Your task to perform on an android device: turn off data saver in the chrome app Image 0: 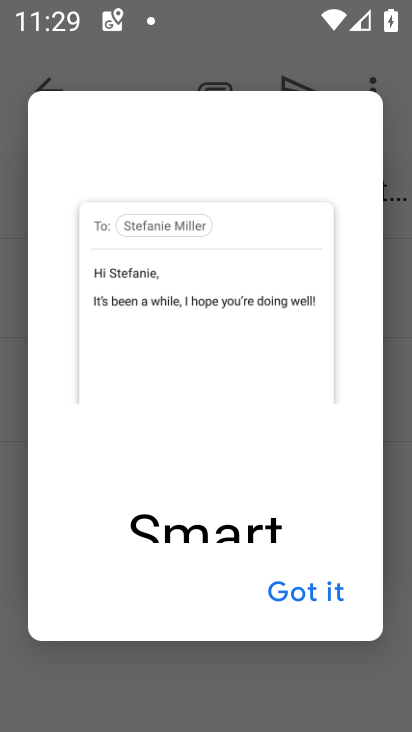
Step 0: press home button
Your task to perform on an android device: turn off data saver in the chrome app Image 1: 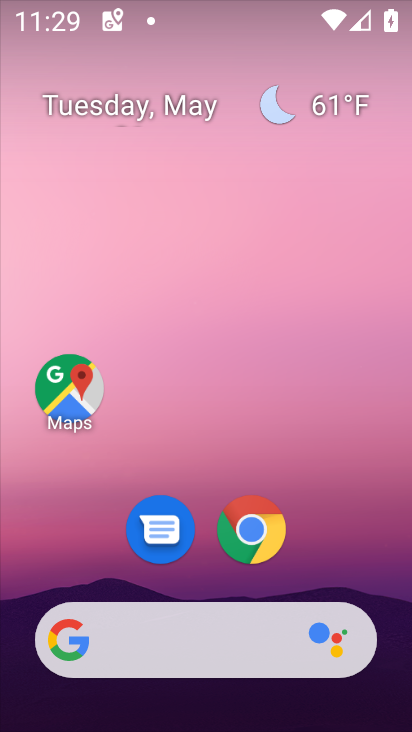
Step 1: click (267, 541)
Your task to perform on an android device: turn off data saver in the chrome app Image 2: 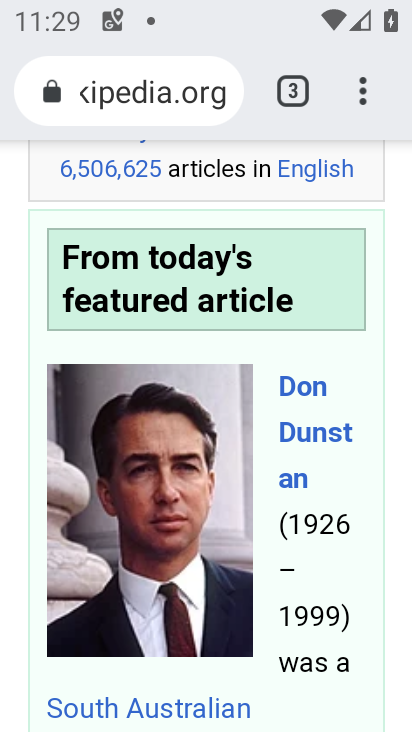
Step 2: click (362, 101)
Your task to perform on an android device: turn off data saver in the chrome app Image 3: 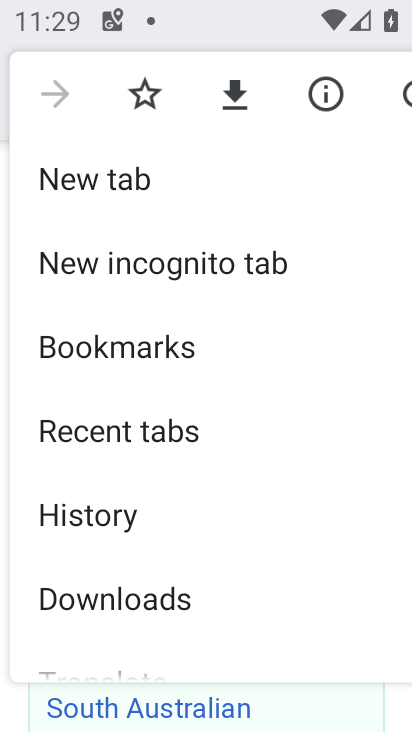
Step 3: drag from (117, 598) to (120, 107)
Your task to perform on an android device: turn off data saver in the chrome app Image 4: 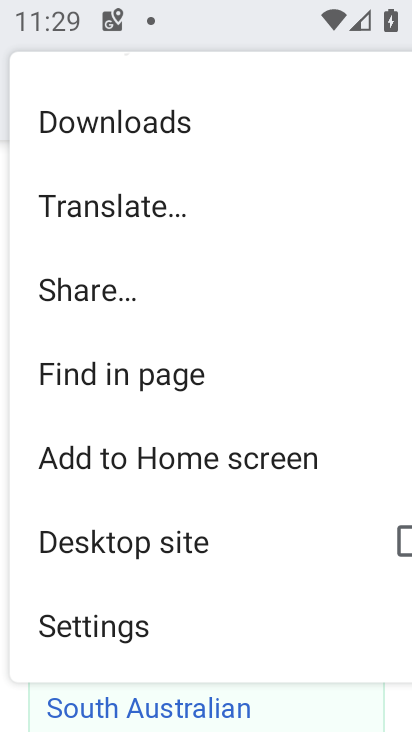
Step 4: click (110, 622)
Your task to perform on an android device: turn off data saver in the chrome app Image 5: 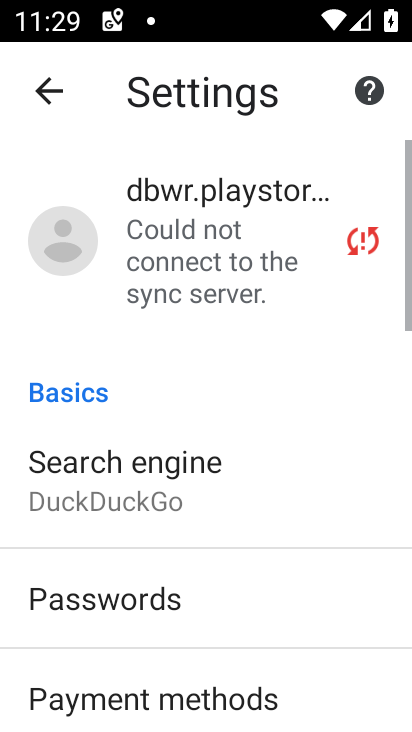
Step 5: task complete